Your task to perform on an android device: star an email in the gmail app Image 0: 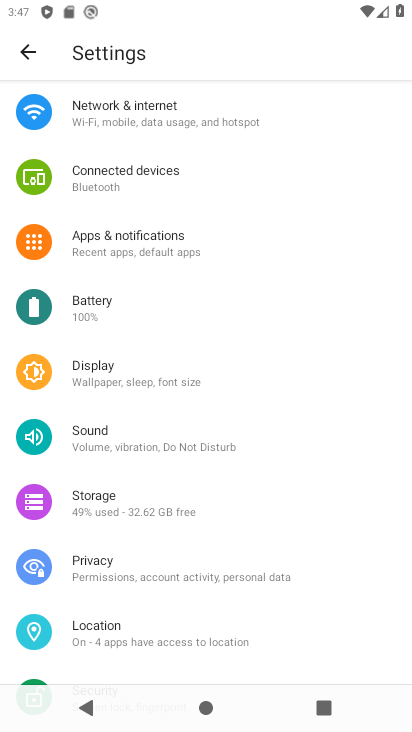
Step 0: press home button
Your task to perform on an android device: star an email in the gmail app Image 1: 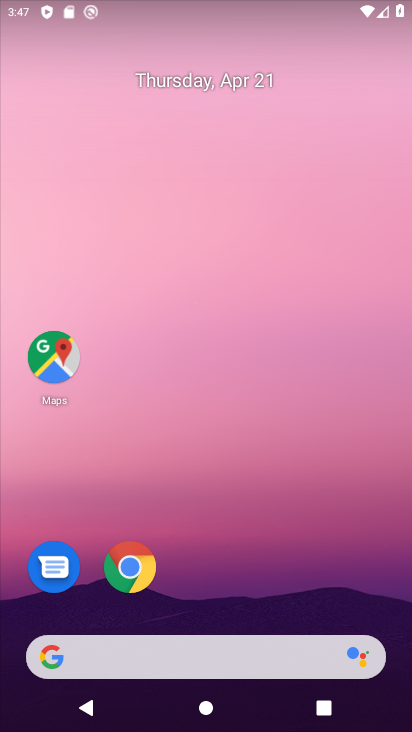
Step 1: drag from (254, 590) to (261, 32)
Your task to perform on an android device: star an email in the gmail app Image 2: 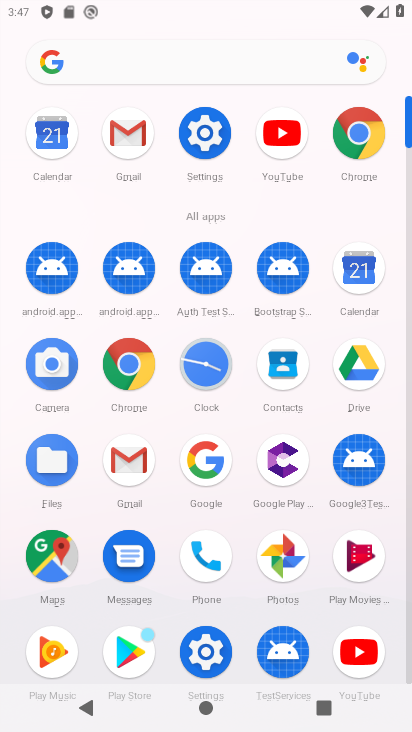
Step 2: click (145, 469)
Your task to perform on an android device: star an email in the gmail app Image 3: 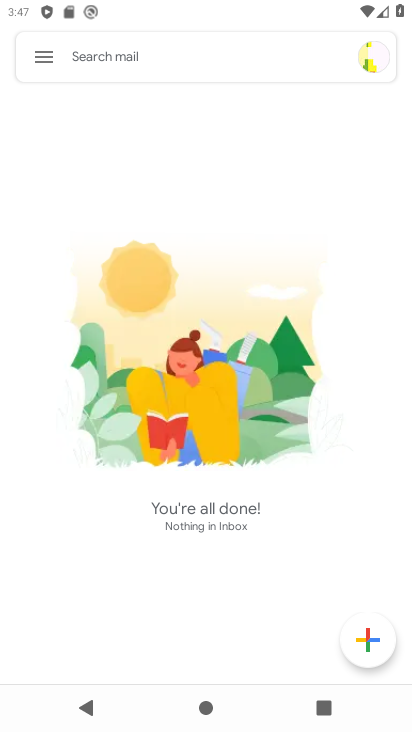
Step 3: click (37, 48)
Your task to perform on an android device: star an email in the gmail app Image 4: 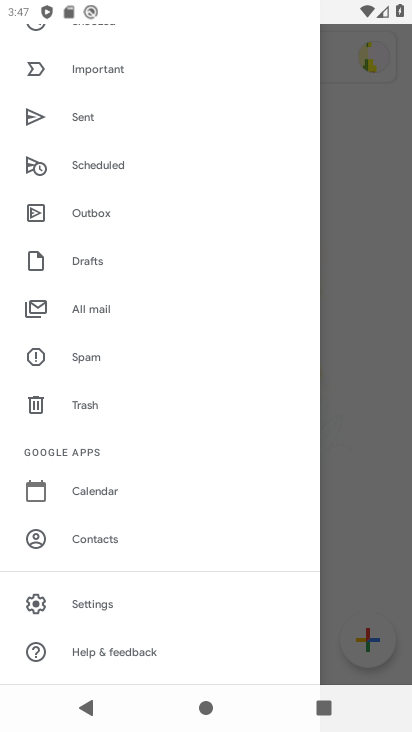
Step 4: drag from (123, 117) to (136, 460)
Your task to perform on an android device: star an email in the gmail app Image 5: 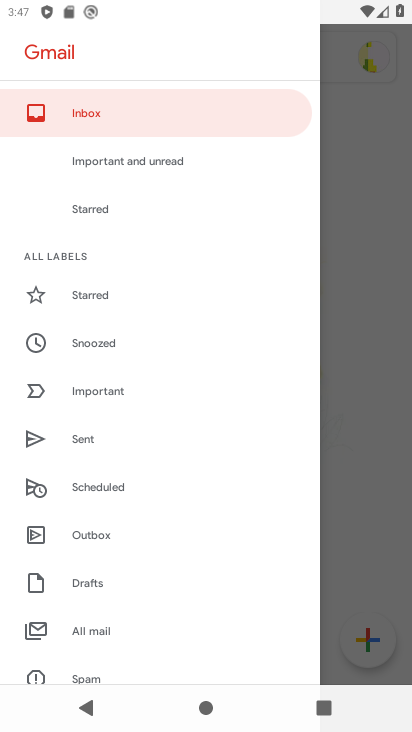
Step 5: click (88, 300)
Your task to perform on an android device: star an email in the gmail app Image 6: 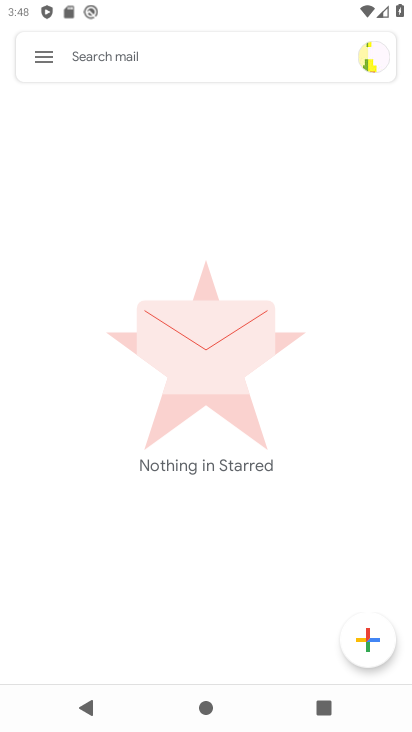
Step 6: task complete